Your task to perform on an android device: Go to Reddit.com Image 0: 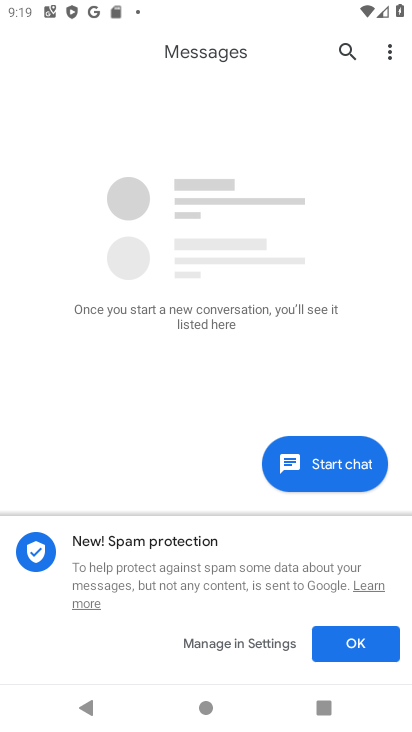
Step 0: press home button
Your task to perform on an android device: Go to Reddit.com Image 1: 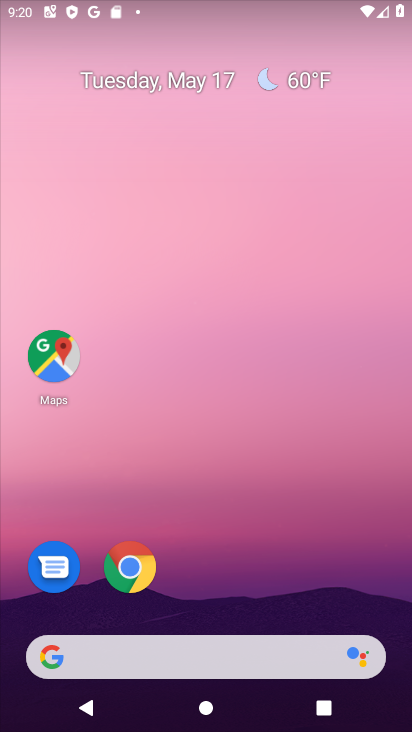
Step 1: drag from (375, 613) to (293, 66)
Your task to perform on an android device: Go to Reddit.com Image 2: 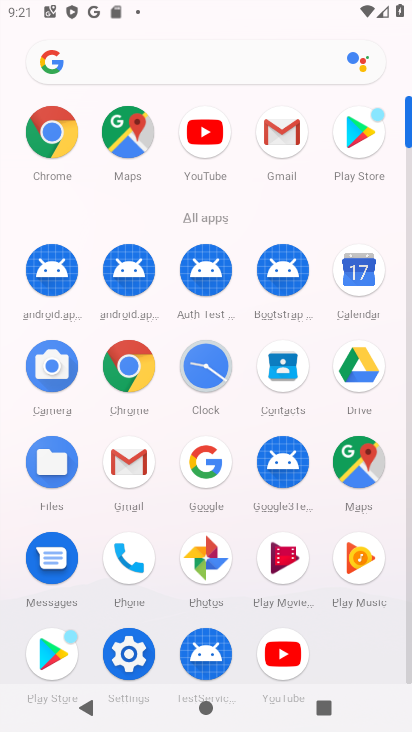
Step 2: click (208, 450)
Your task to perform on an android device: Go to Reddit.com Image 3: 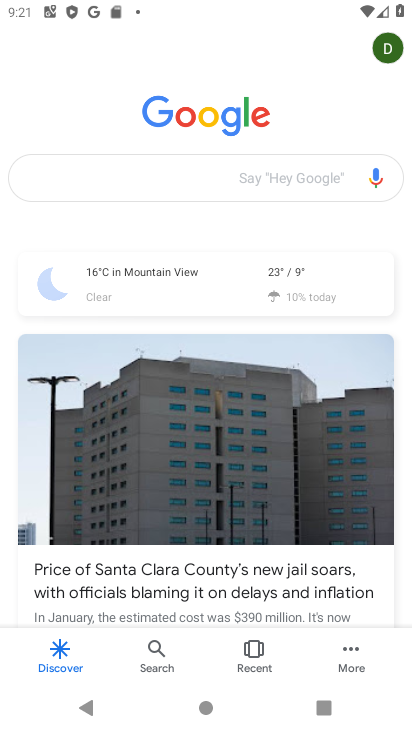
Step 3: click (247, 184)
Your task to perform on an android device: Go to Reddit.com Image 4: 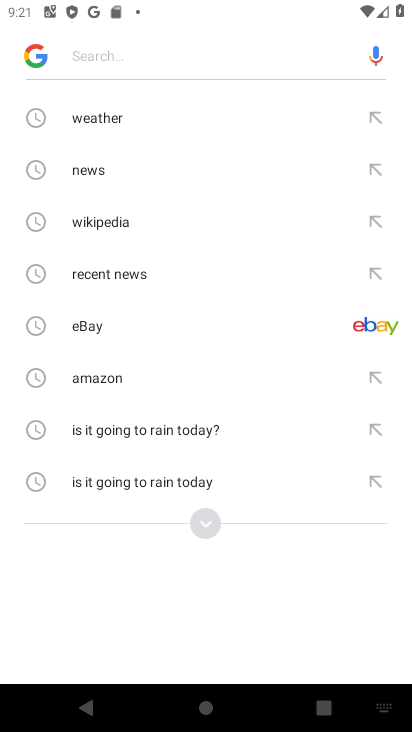
Step 4: click (214, 511)
Your task to perform on an android device: Go to Reddit.com Image 5: 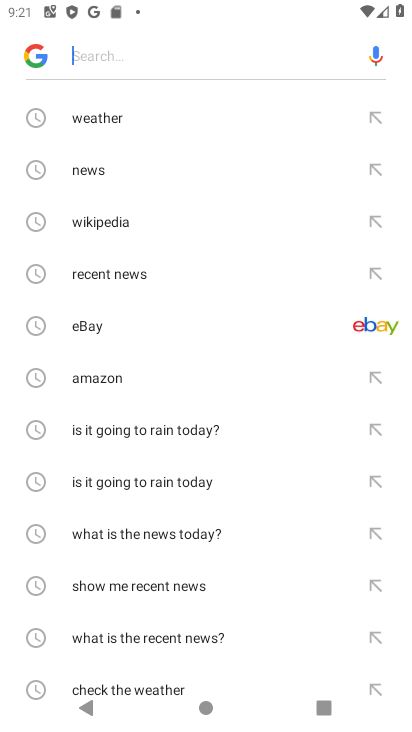
Step 5: drag from (138, 623) to (206, 108)
Your task to perform on an android device: Go to Reddit.com Image 6: 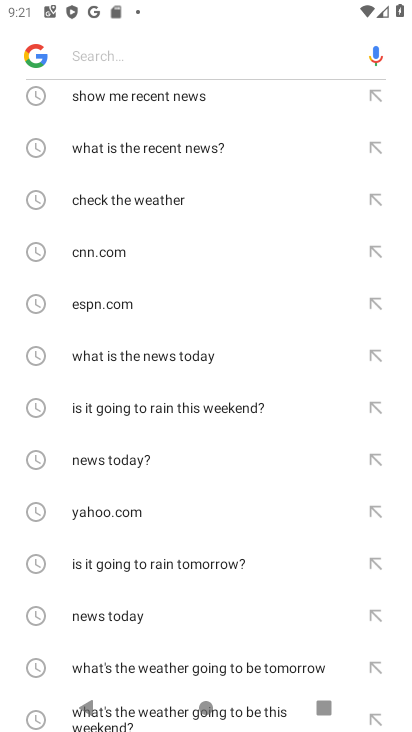
Step 6: drag from (101, 562) to (192, 211)
Your task to perform on an android device: Go to Reddit.com Image 7: 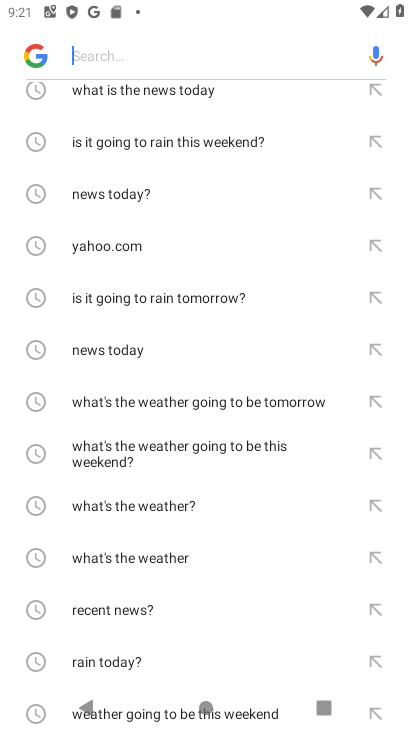
Step 7: click (173, 57)
Your task to perform on an android device: Go to Reddit.com Image 8: 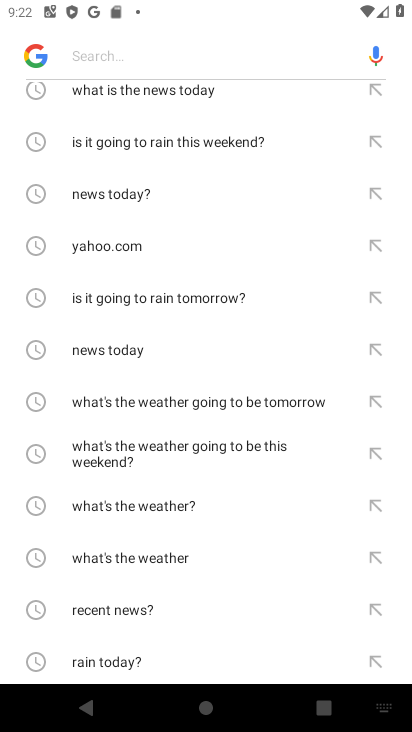
Step 8: type "reddit.com"
Your task to perform on an android device: Go to Reddit.com Image 9: 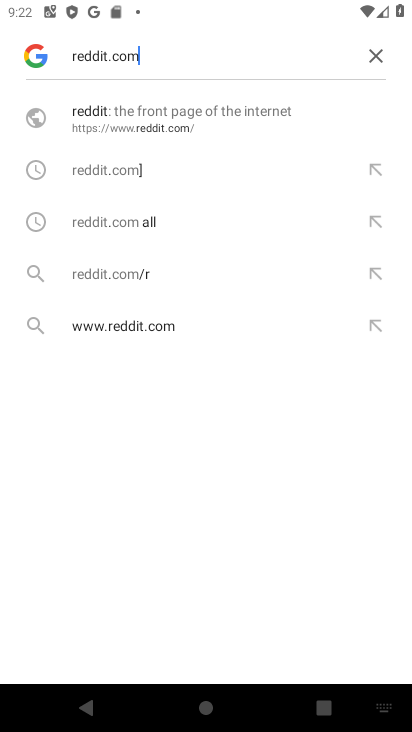
Step 9: click (158, 140)
Your task to perform on an android device: Go to Reddit.com Image 10: 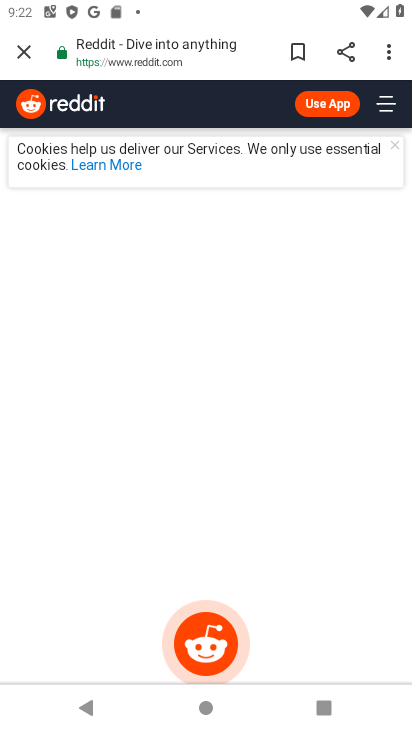
Step 10: task complete